Your task to perform on an android device: Go to Google maps Image 0: 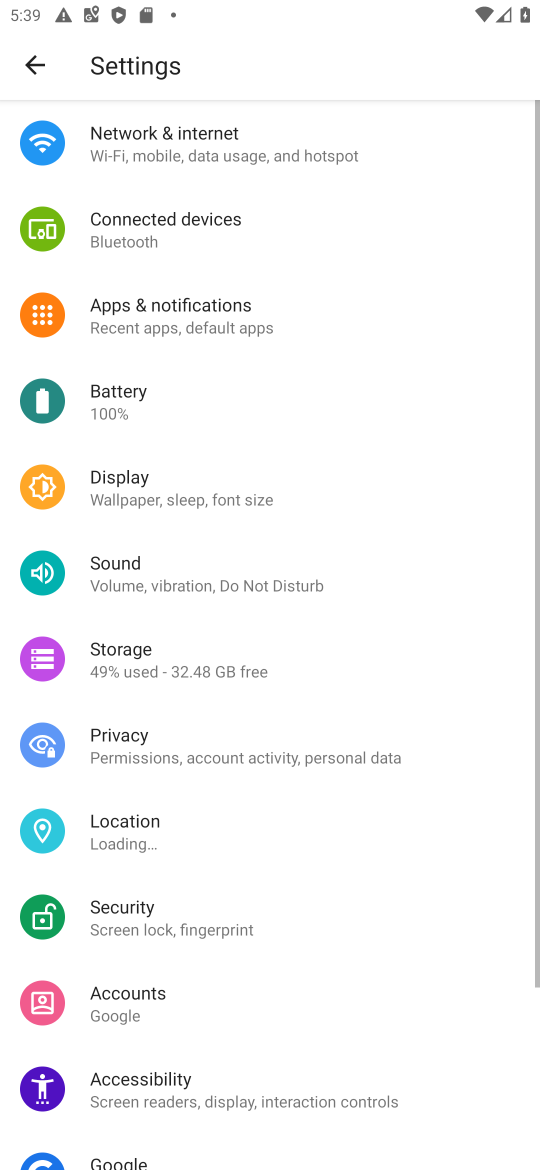
Step 0: press back button
Your task to perform on an android device: Go to Google maps Image 1: 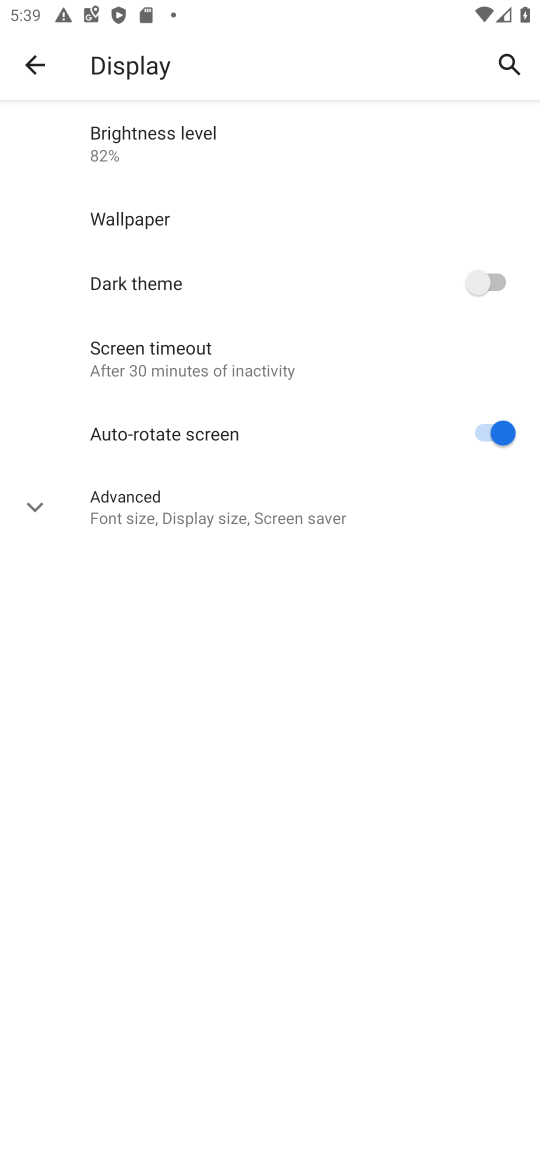
Step 1: press home button
Your task to perform on an android device: Go to Google maps Image 2: 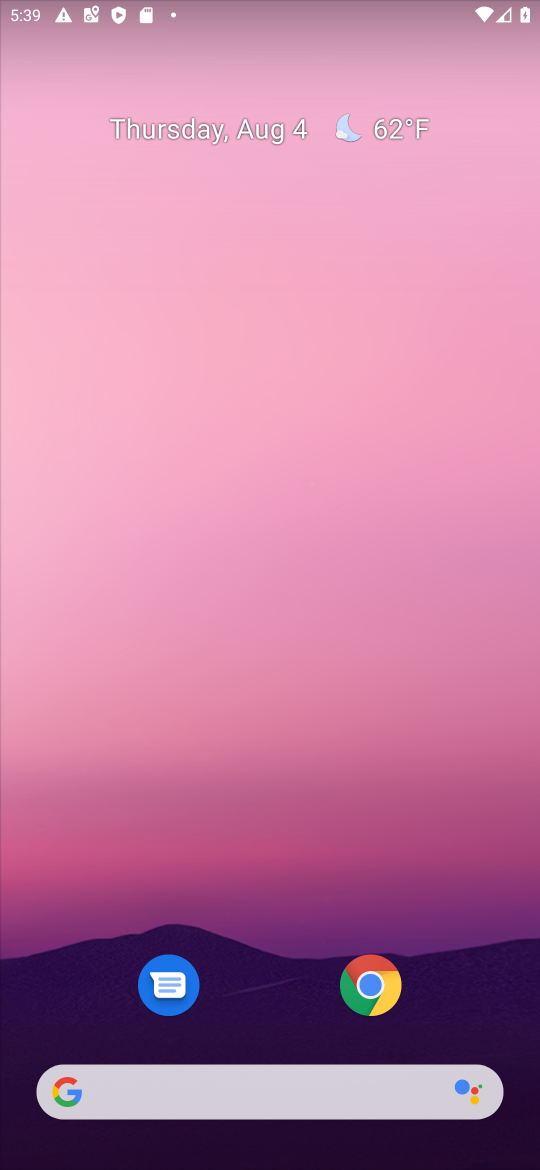
Step 2: drag from (299, 1033) to (106, 23)
Your task to perform on an android device: Go to Google maps Image 3: 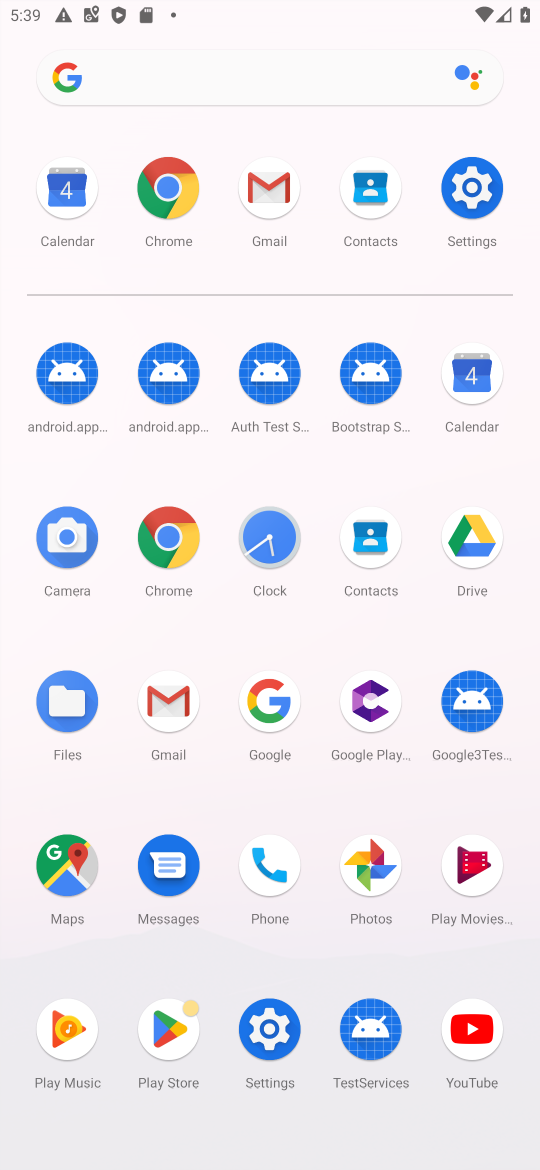
Step 3: click (86, 865)
Your task to perform on an android device: Go to Google maps Image 4: 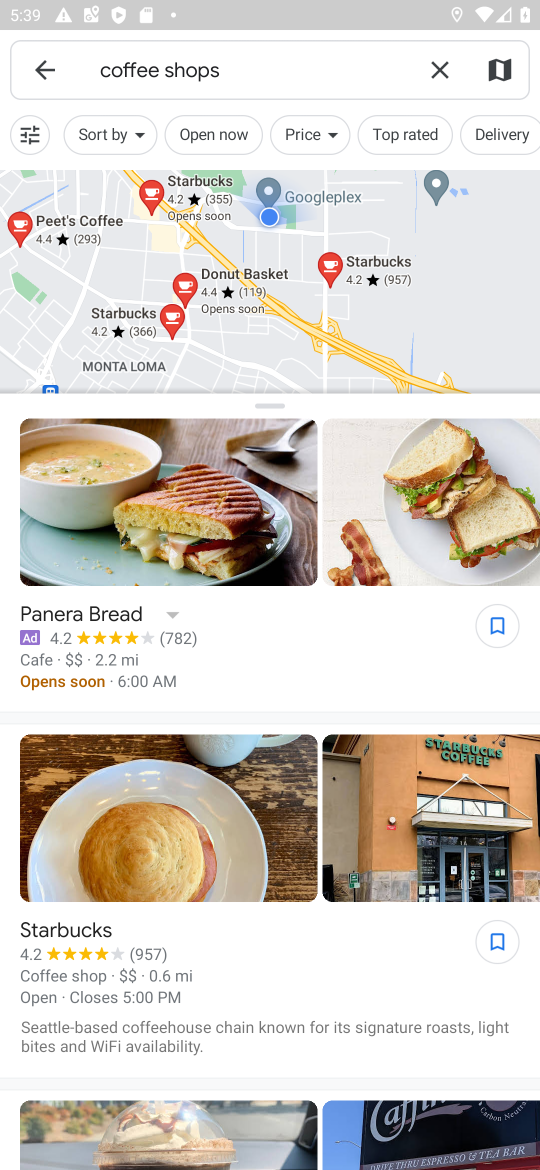
Step 4: task complete